Your task to perform on an android device: Clear the shopping cart on amazon.com. Image 0: 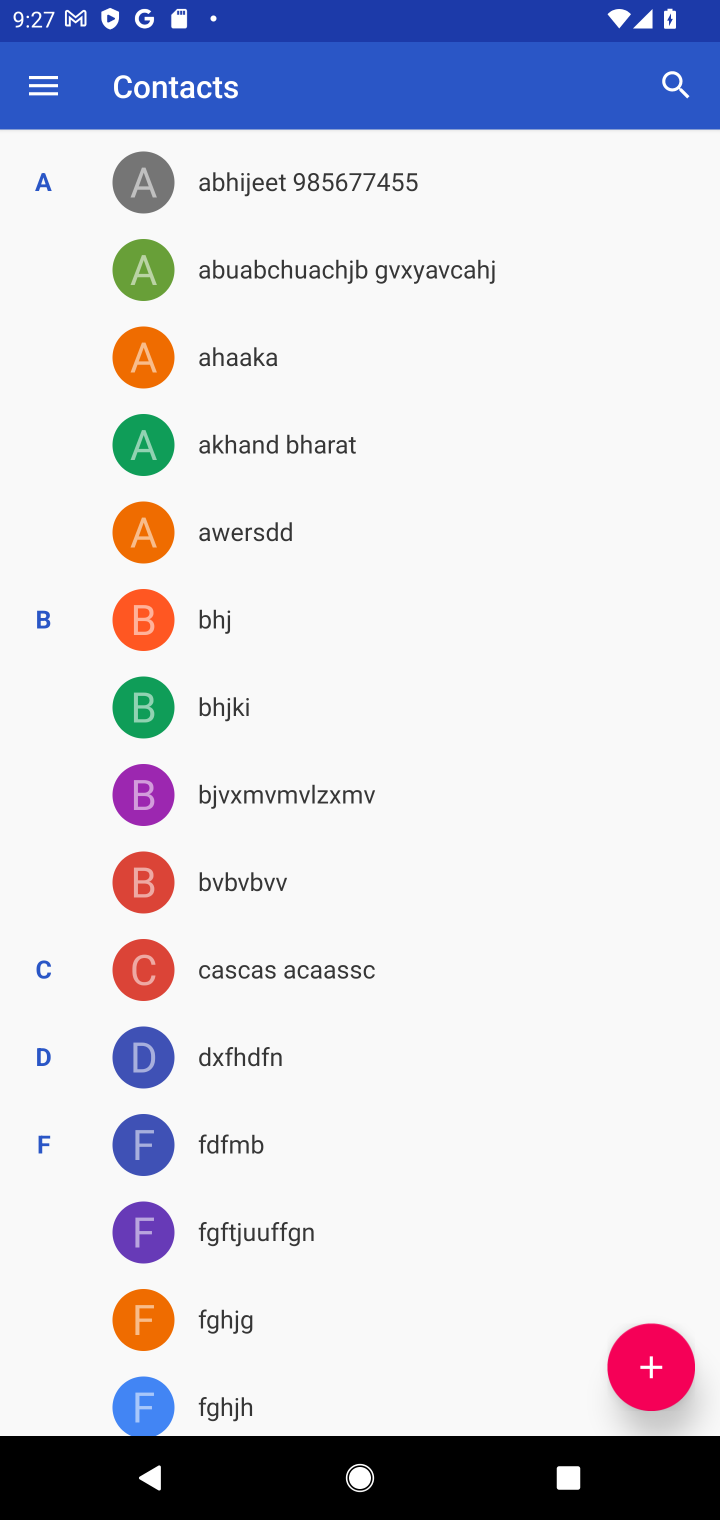
Step 0: press home button
Your task to perform on an android device: Clear the shopping cart on amazon.com. Image 1: 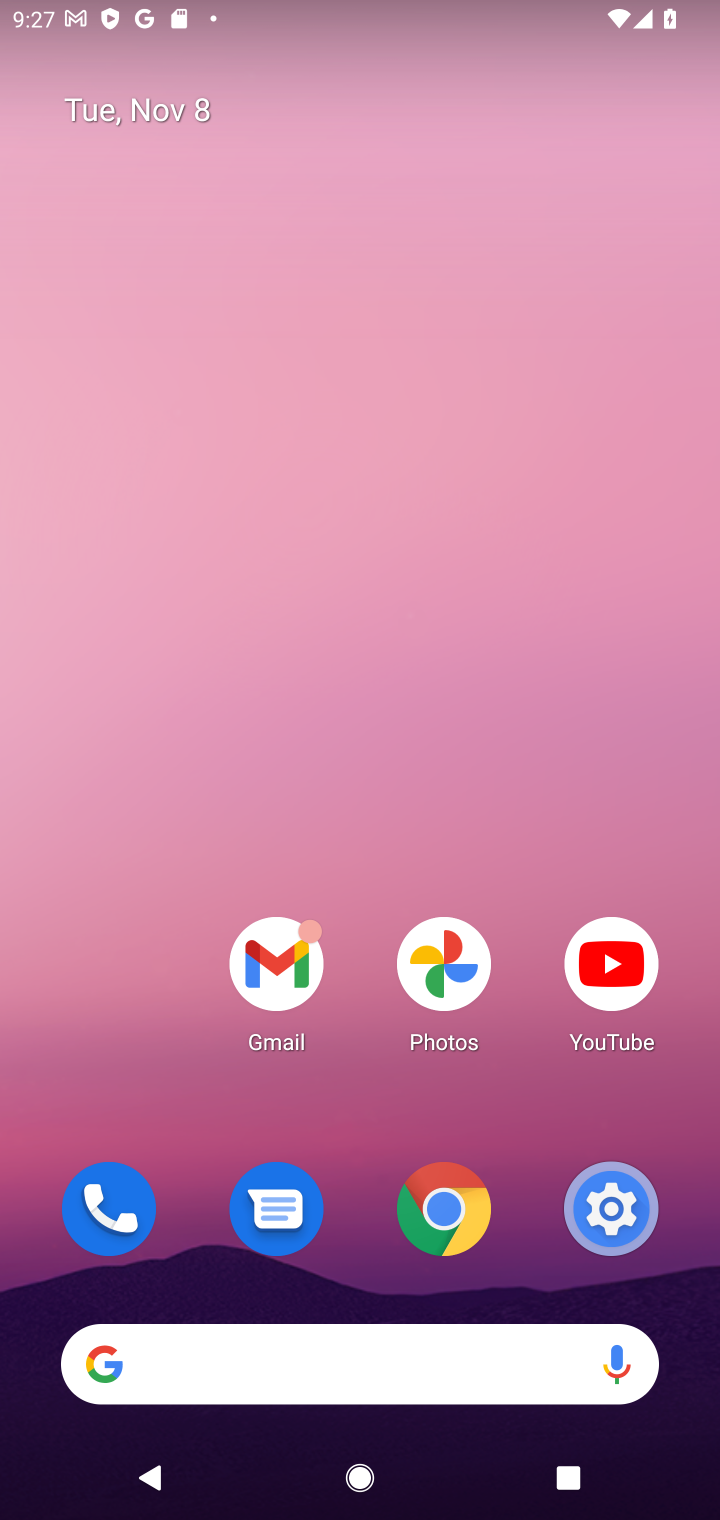
Step 1: click (433, 1218)
Your task to perform on an android device: Clear the shopping cart on amazon.com. Image 2: 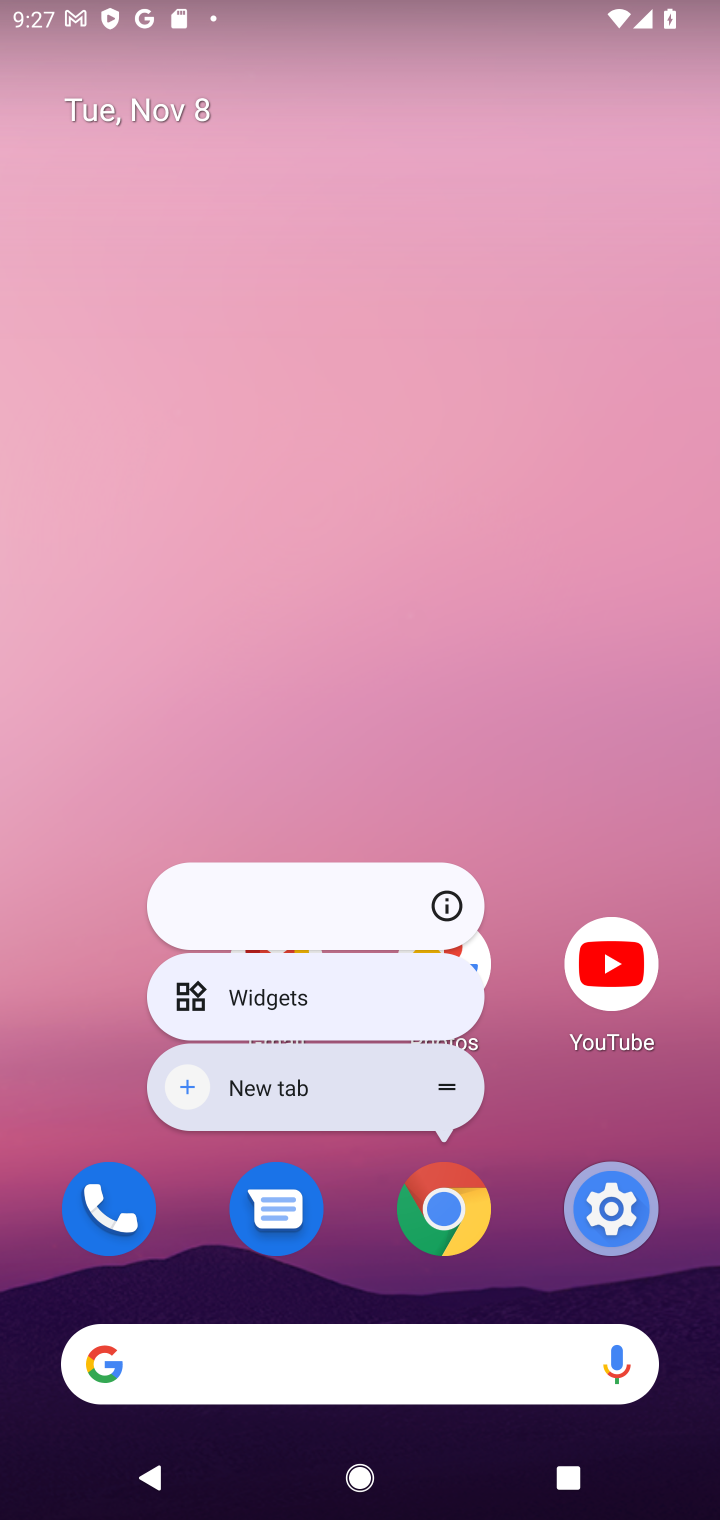
Step 2: click (447, 1207)
Your task to perform on an android device: Clear the shopping cart on amazon.com. Image 3: 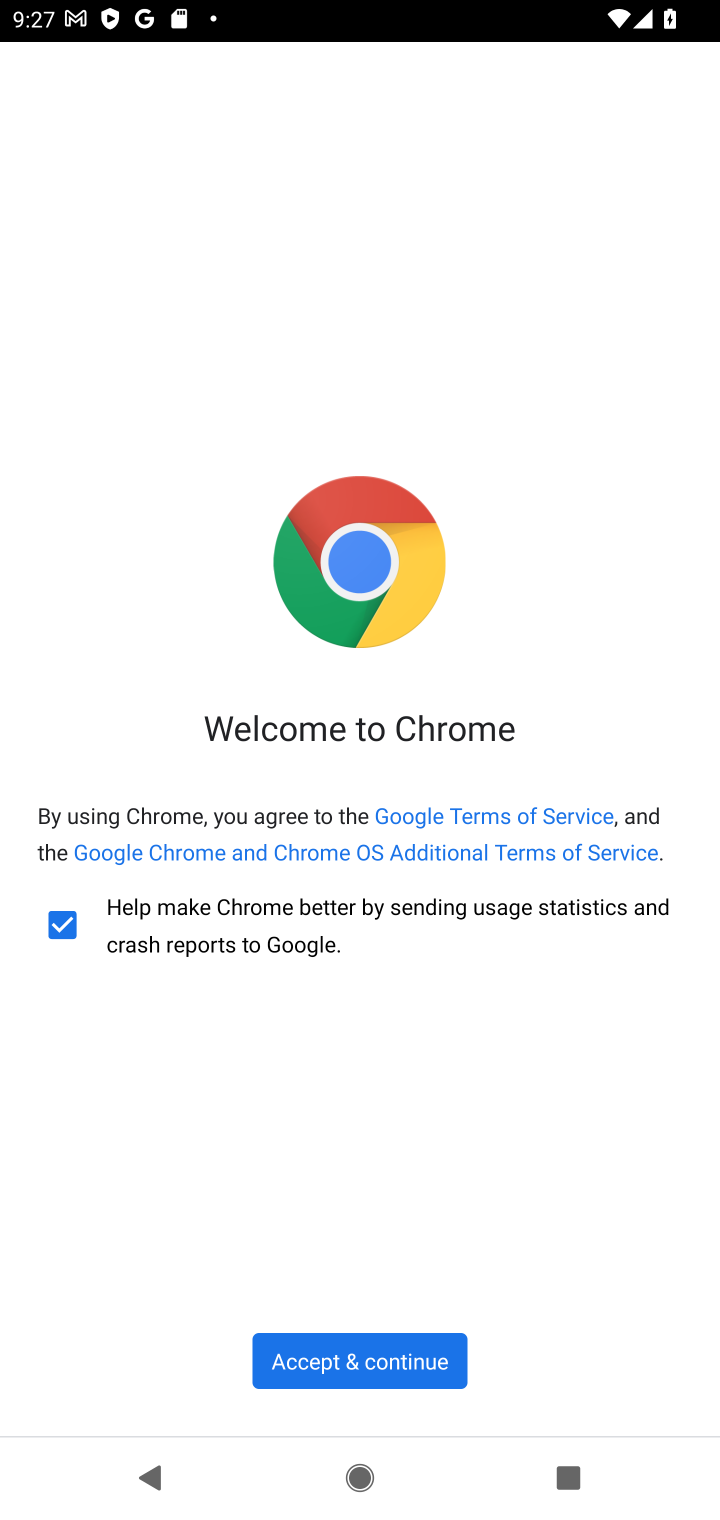
Step 3: click (401, 1386)
Your task to perform on an android device: Clear the shopping cart on amazon.com. Image 4: 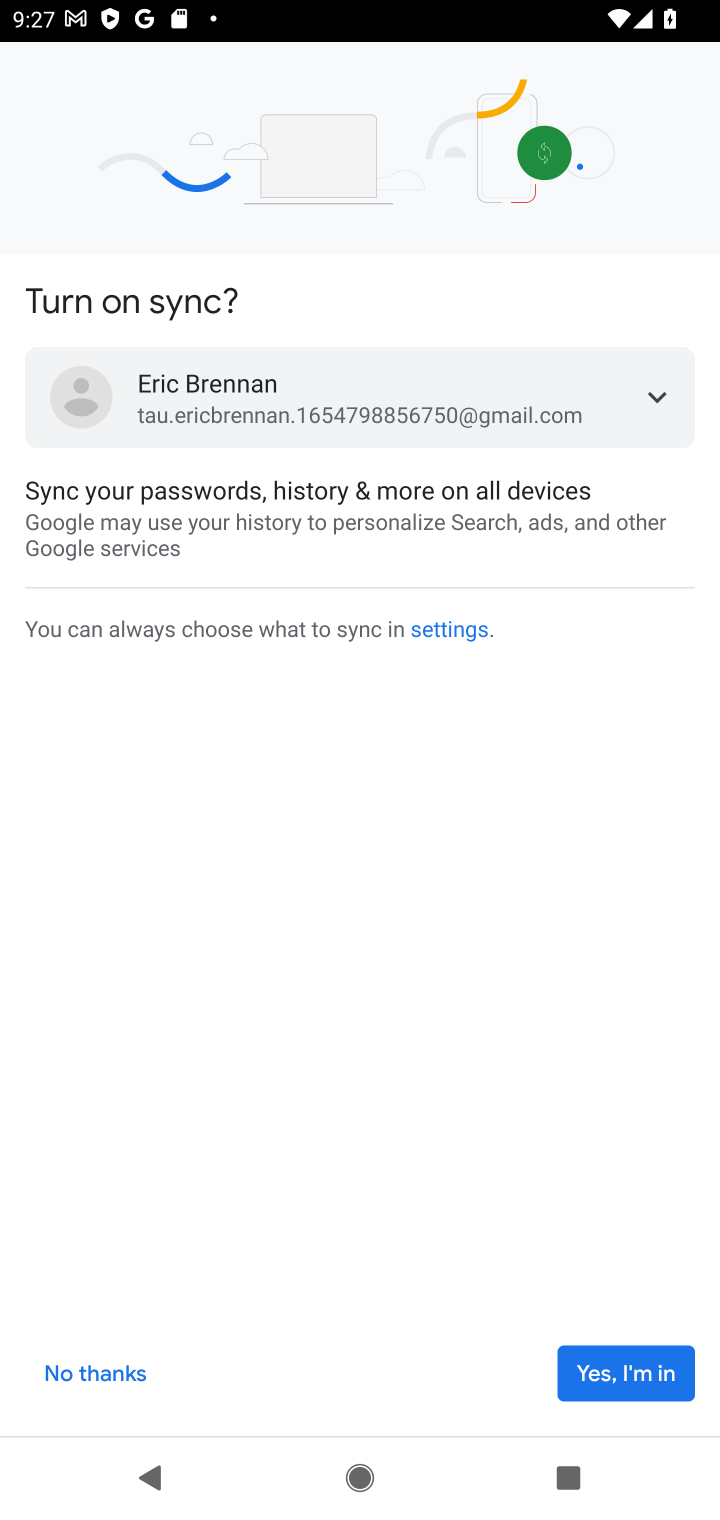
Step 4: click (602, 1384)
Your task to perform on an android device: Clear the shopping cart on amazon.com. Image 5: 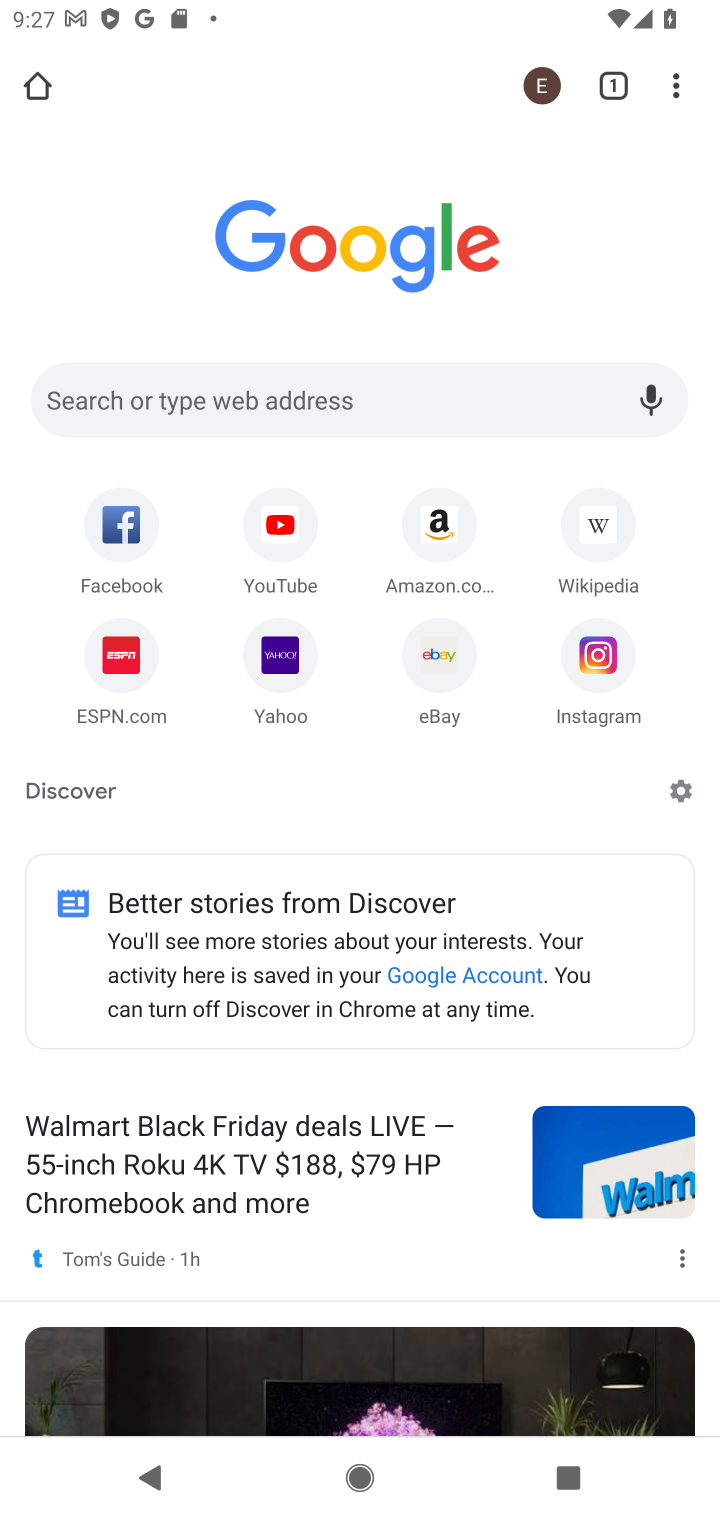
Step 5: click (441, 526)
Your task to perform on an android device: Clear the shopping cart on amazon.com. Image 6: 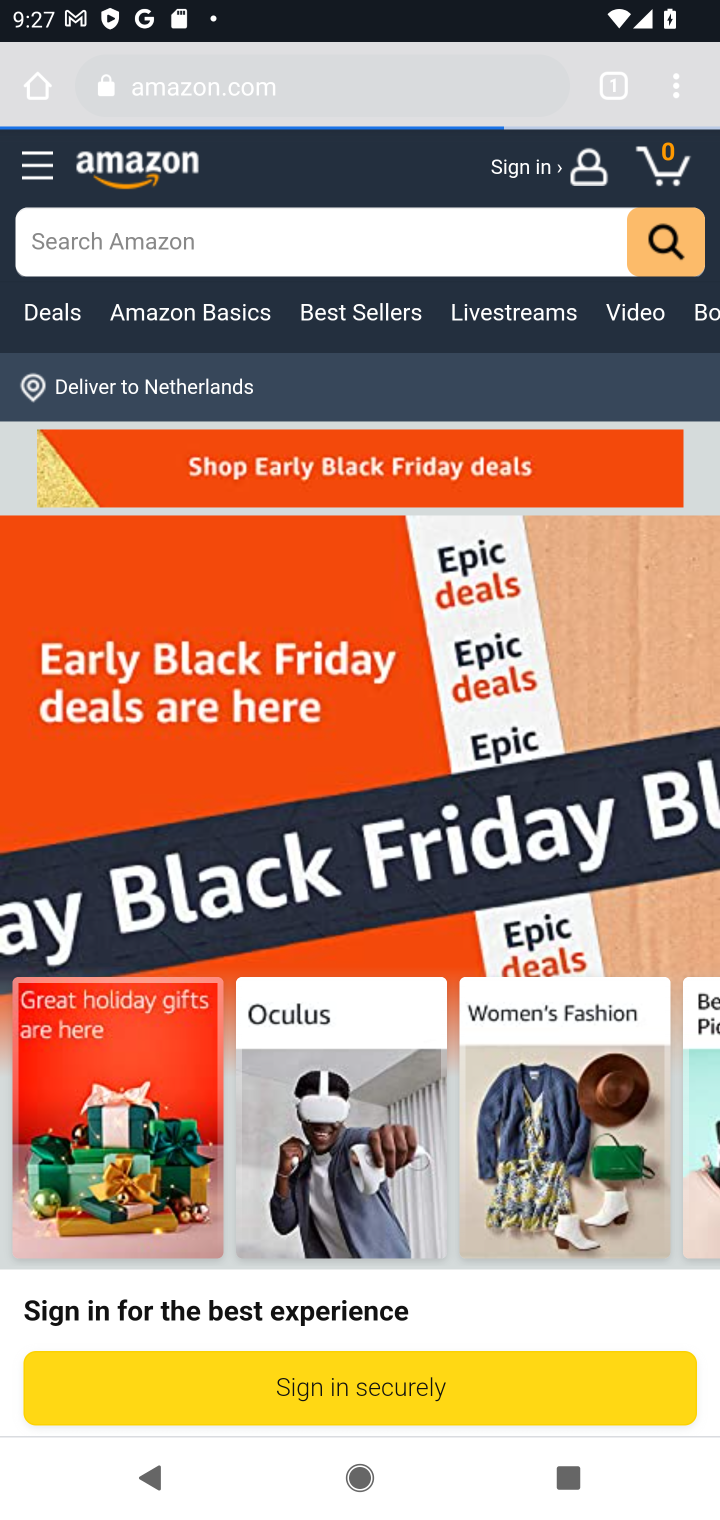
Step 6: task complete